Your task to perform on an android device: Open Google Maps Image 0: 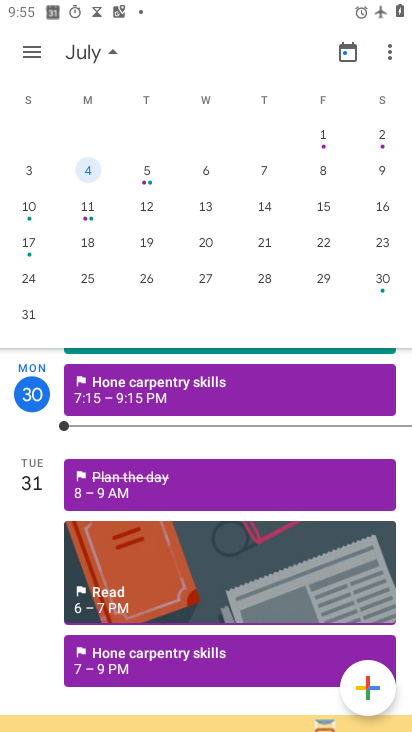
Step 0: press home button
Your task to perform on an android device: Open Google Maps Image 1: 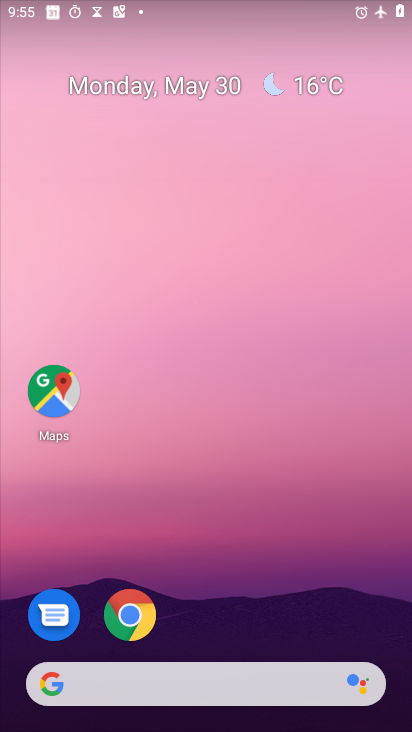
Step 1: drag from (347, 496) to (13, 184)
Your task to perform on an android device: Open Google Maps Image 2: 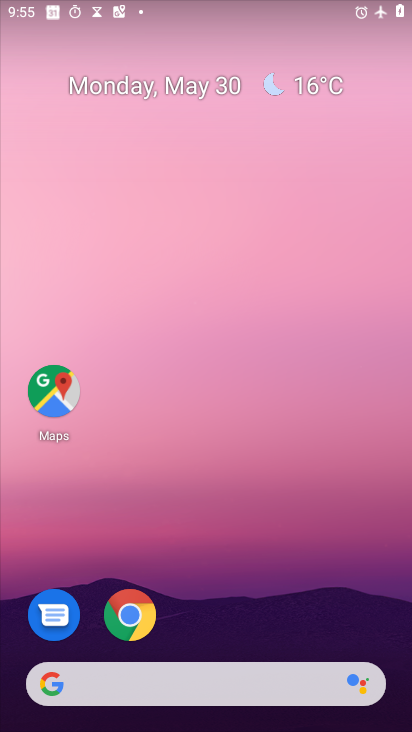
Step 2: drag from (228, 618) to (169, 0)
Your task to perform on an android device: Open Google Maps Image 3: 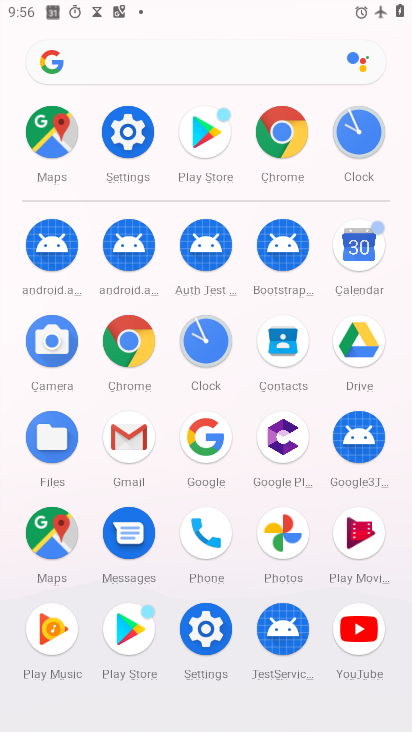
Step 3: click (47, 134)
Your task to perform on an android device: Open Google Maps Image 4: 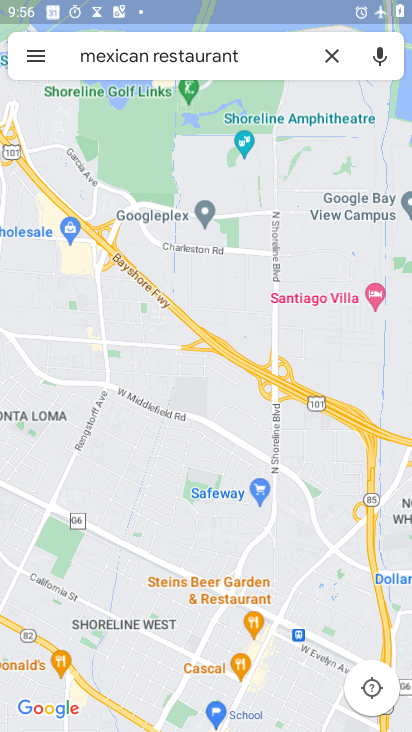
Step 4: task complete